Your task to perform on an android device: Open Maps and search for coffee Image 0: 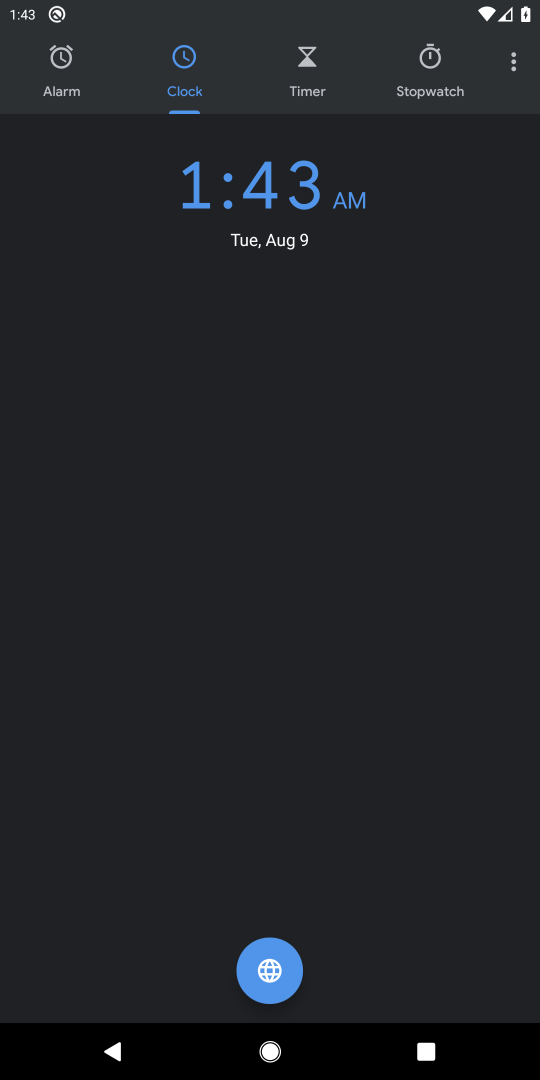
Step 0: press home button
Your task to perform on an android device: Open Maps and search for coffee Image 1: 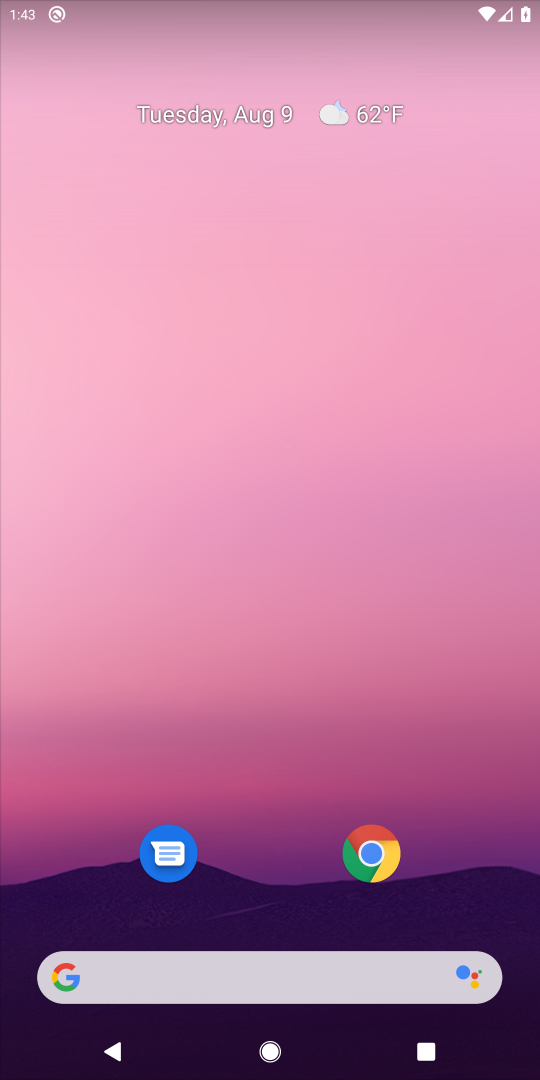
Step 1: drag from (272, 871) to (182, 211)
Your task to perform on an android device: Open Maps and search for coffee Image 2: 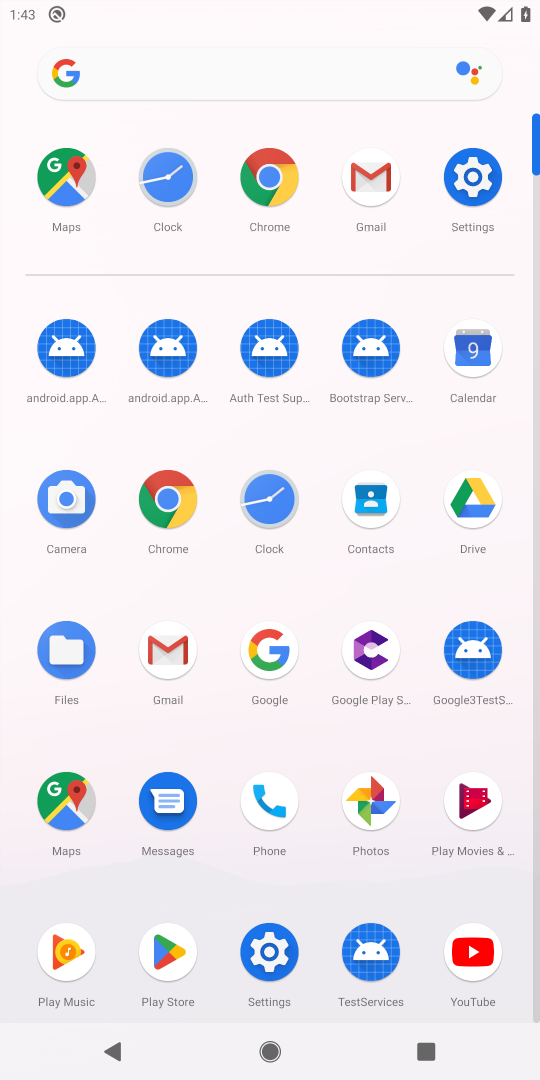
Step 2: click (73, 805)
Your task to perform on an android device: Open Maps and search for coffee Image 3: 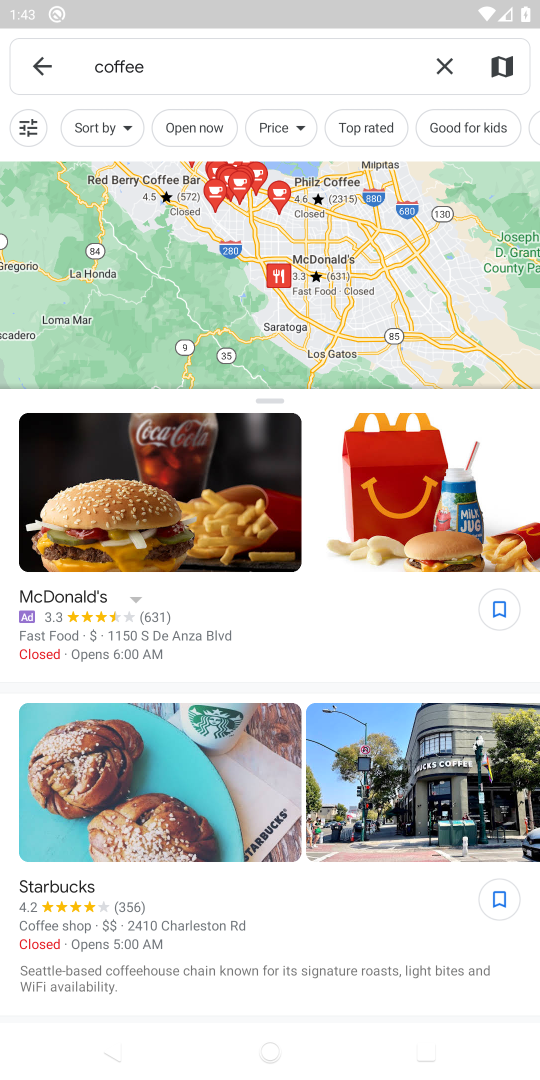
Step 3: task complete